Your task to perform on an android device: uninstall "Skype" Image 0: 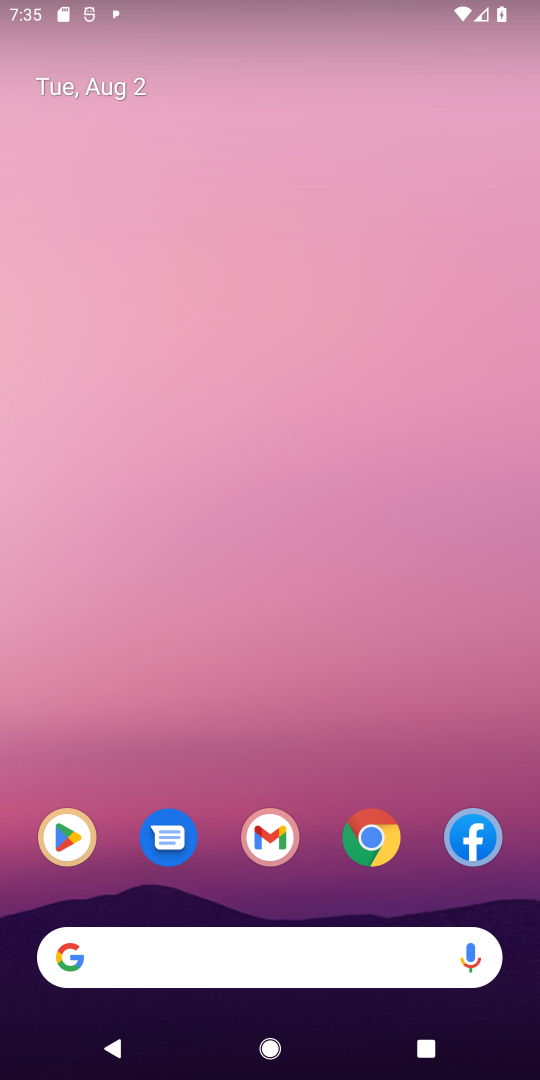
Step 0: click (53, 838)
Your task to perform on an android device: uninstall "Skype" Image 1: 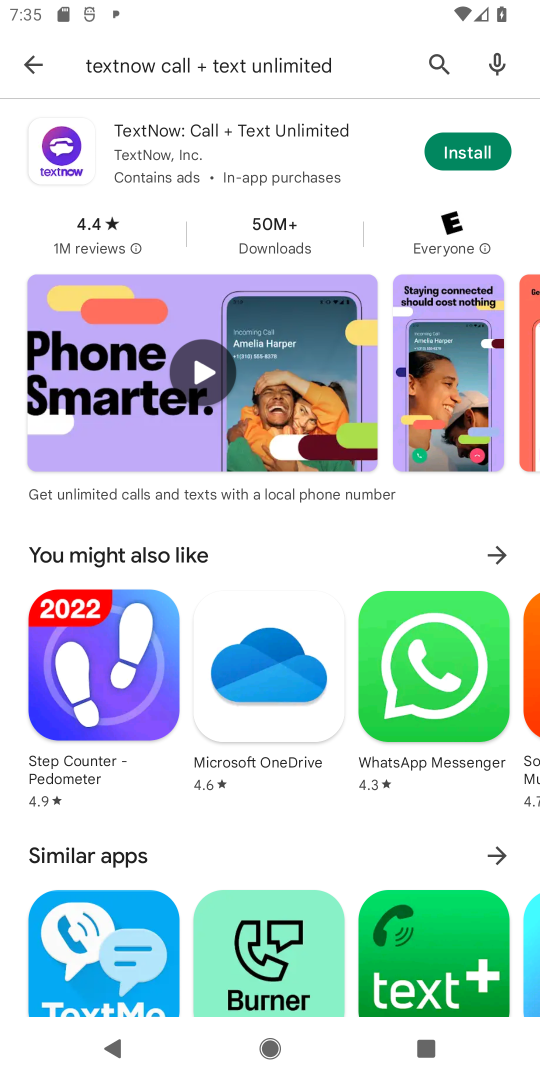
Step 1: click (433, 58)
Your task to perform on an android device: uninstall "Skype" Image 2: 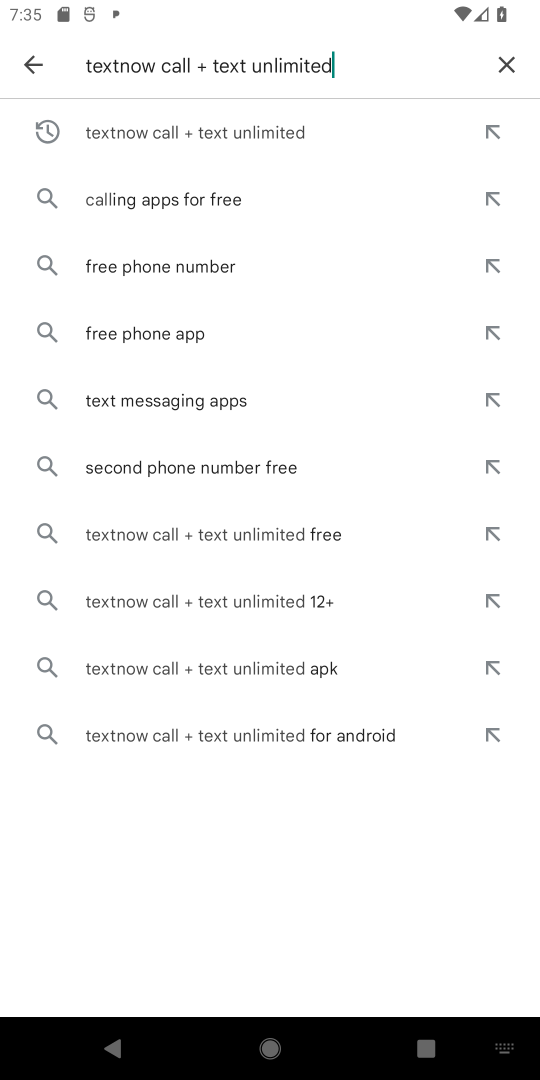
Step 2: click (517, 59)
Your task to perform on an android device: uninstall "Skype" Image 3: 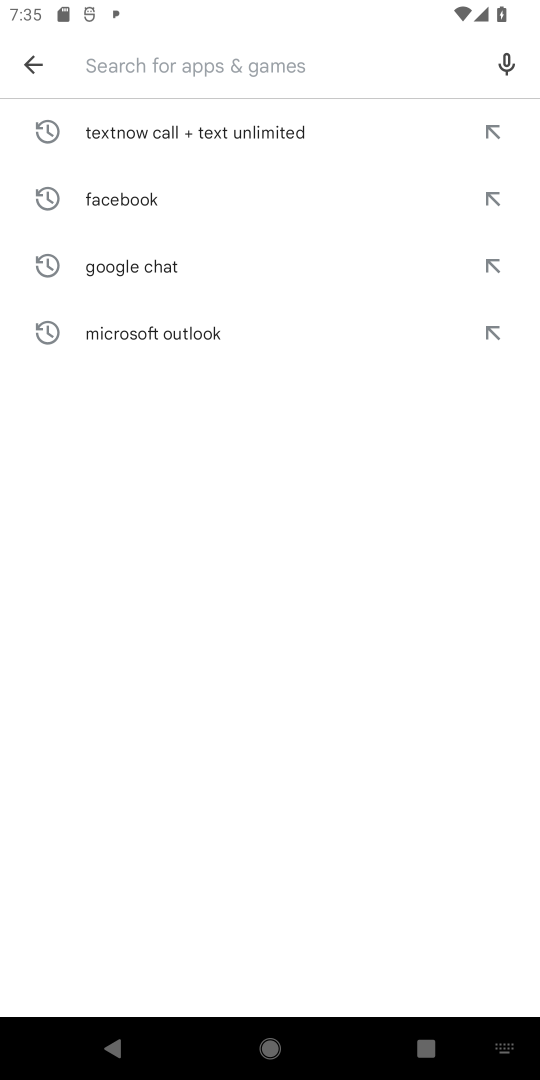
Step 3: type "Skype"
Your task to perform on an android device: uninstall "Skype" Image 4: 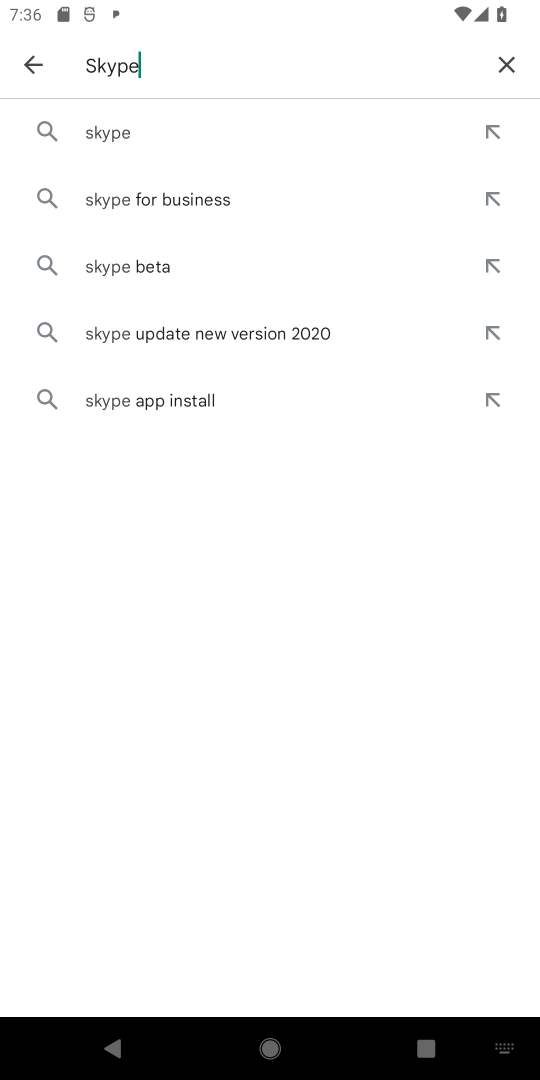
Step 4: click (113, 130)
Your task to perform on an android device: uninstall "Skype" Image 5: 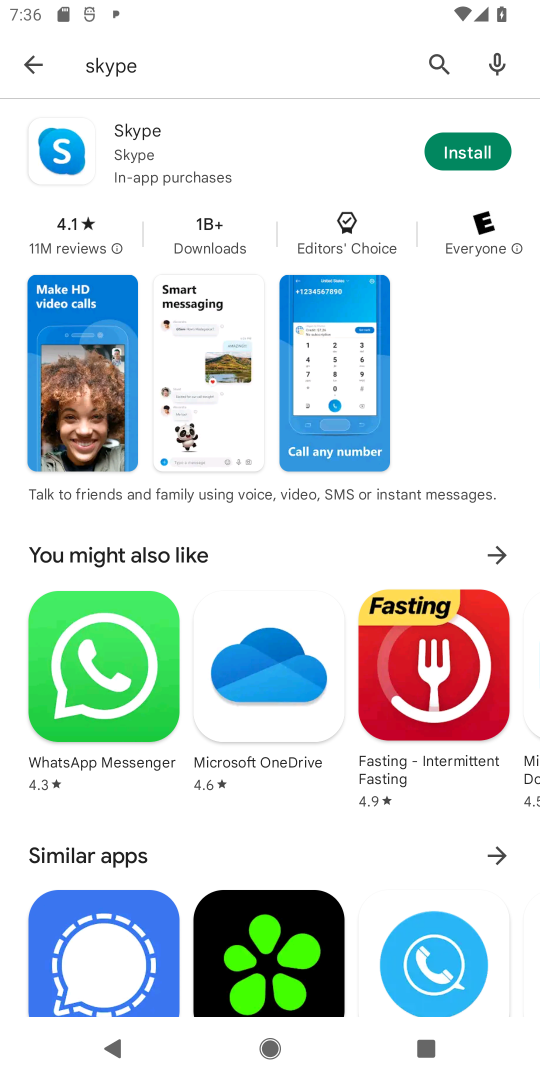
Step 5: task complete